Your task to perform on an android device: toggle pop-ups in chrome Image 0: 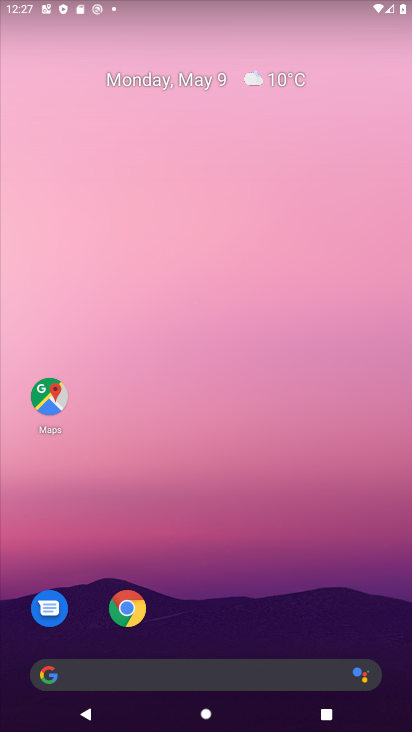
Step 0: click (122, 595)
Your task to perform on an android device: toggle pop-ups in chrome Image 1: 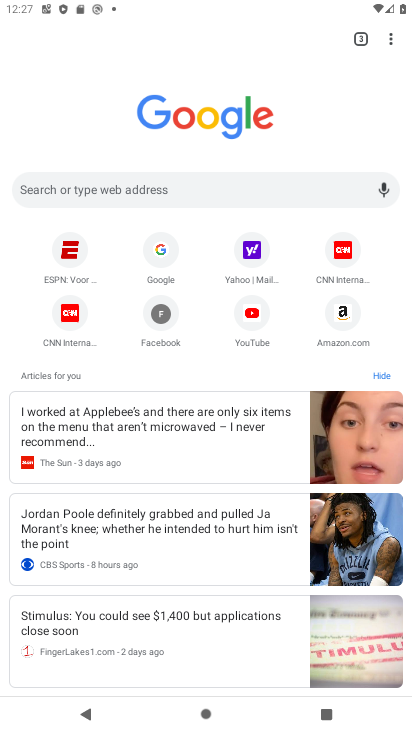
Step 1: click (391, 36)
Your task to perform on an android device: toggle pop-ups in chrome Image 2: 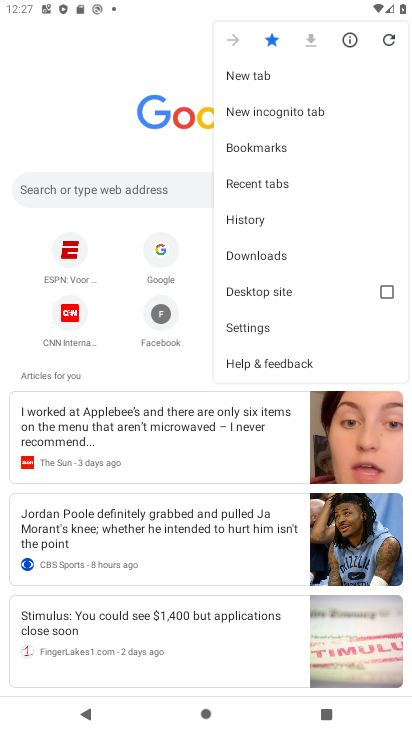
Step 2: click (258, 331)
Your task to perform on an android device: toggle pop-ups in chrome Image 3: 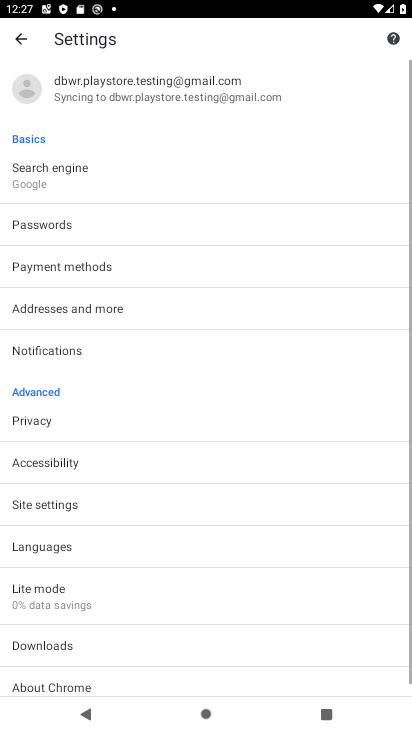
Step 3: drag from (187, 492) to (253, 319)
Your task to perform on an android device: toggle pop-ups in chrome Image 4: 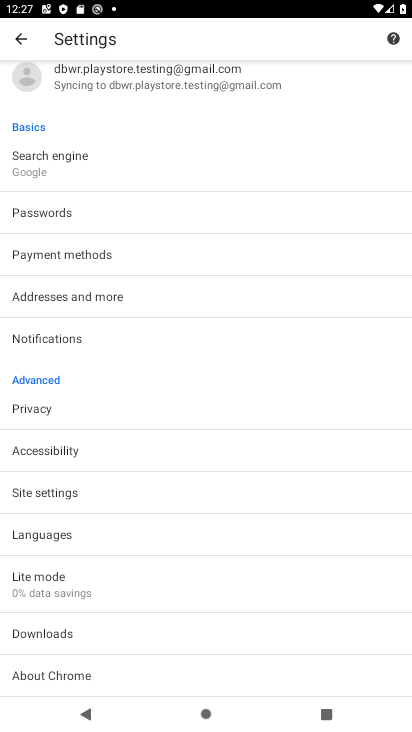
Step 4: click (134, 499)
Your task to perform on an android device: toggle pop-ups in chrome Image 5: 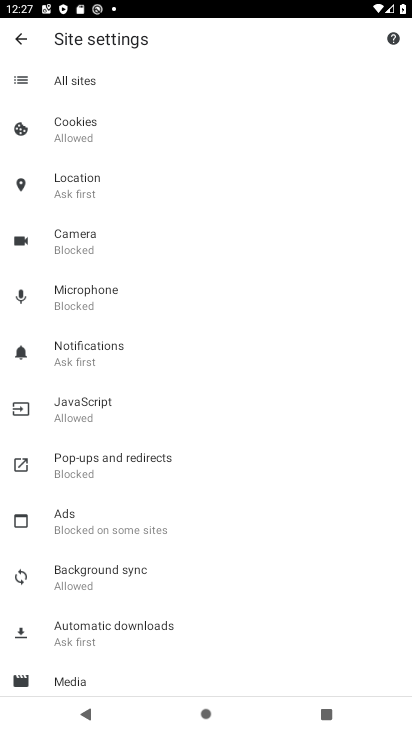
Step 5: click (113, 474)
Your task to perform on an android device: toggle pop-ups in chrome Image 6: 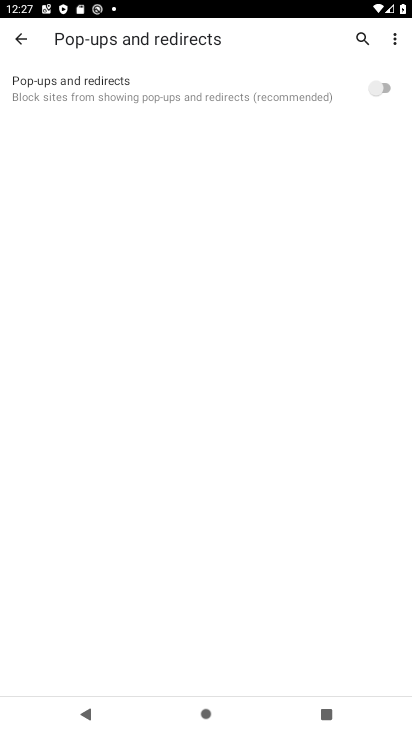
Step 6: task complete